Your task to perform on an android device: Open Chrome and go to the settings page Image 0: 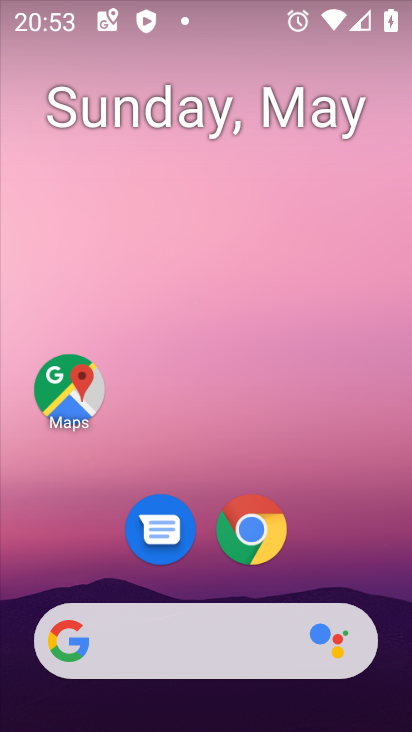
Step 0: click (253, 541)
Your task to perform on an android device: Open Chrome and go to the settings page Image 1: 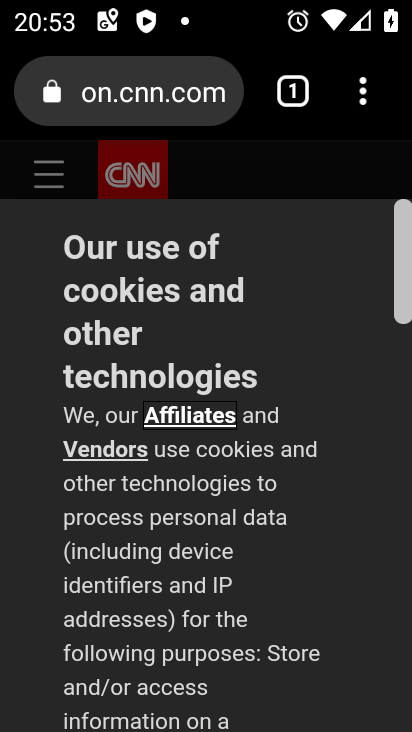
Step 1: click (360, 91)
Your task to perform on an android device: Open Chrome and go to the settings page Image 2: 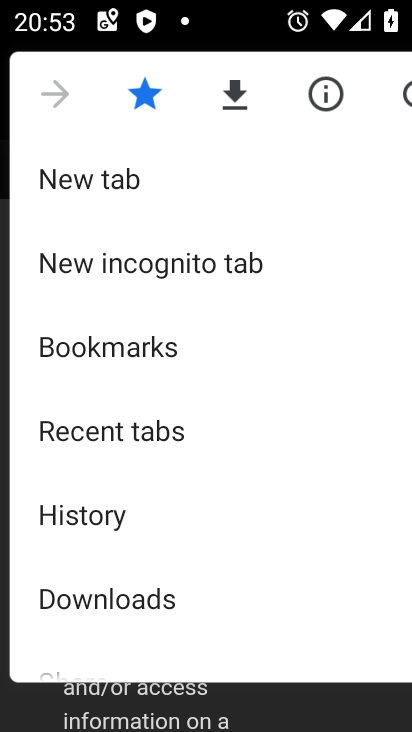
Step 2: drag from (258, 592) to (258, 124)
Your task to perform on an android device: Open Chrome and go to the settings page Image 3: 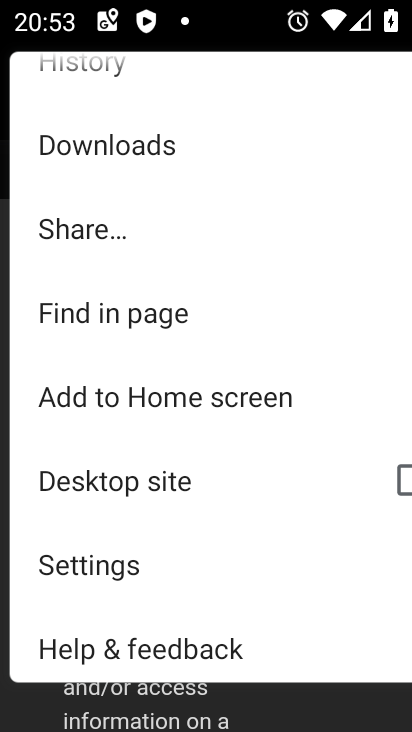
Step 3: click (125, 568)
Your task to perform on an android device: Open Chrome and go to the settings page Image 4: 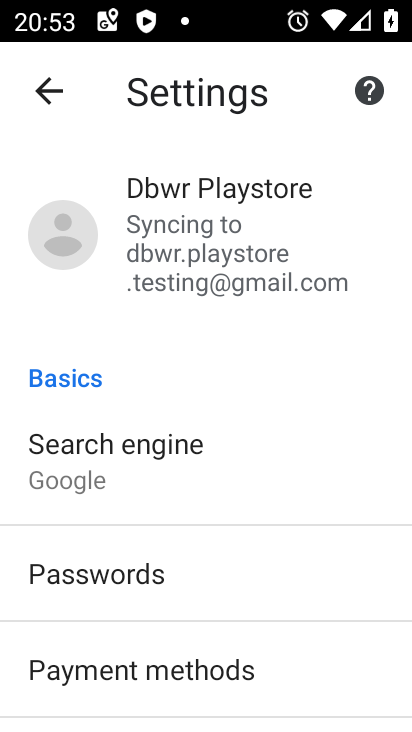
Step 4: task complete